Your task to perform on an android device: Open battery settings Image 0: 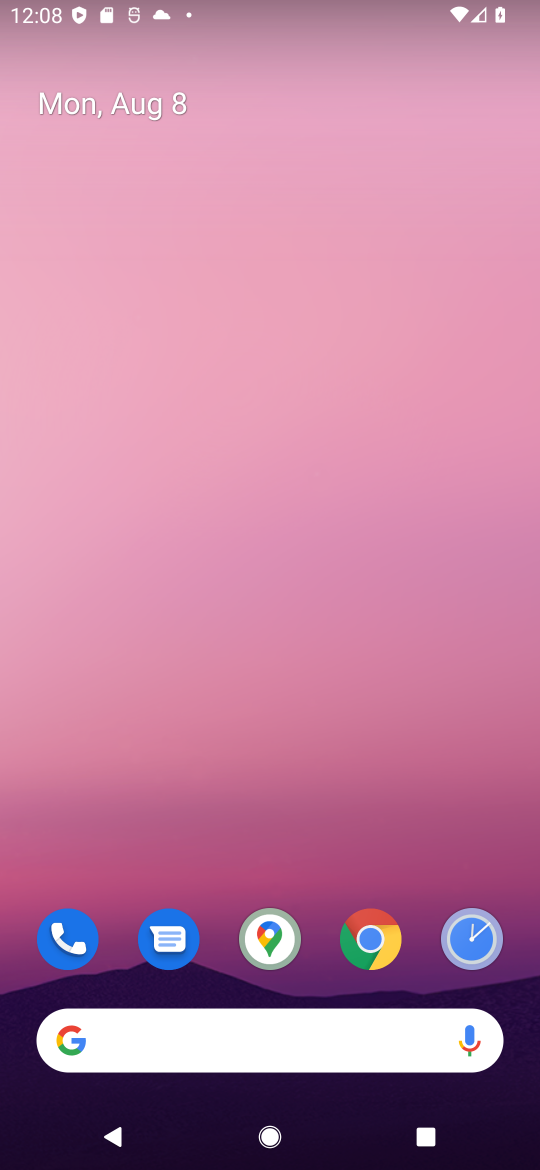
Step 0: drag from (363, 1034) to (383, 601)
Your task to perform on an android device: Open battery settings Image 1: 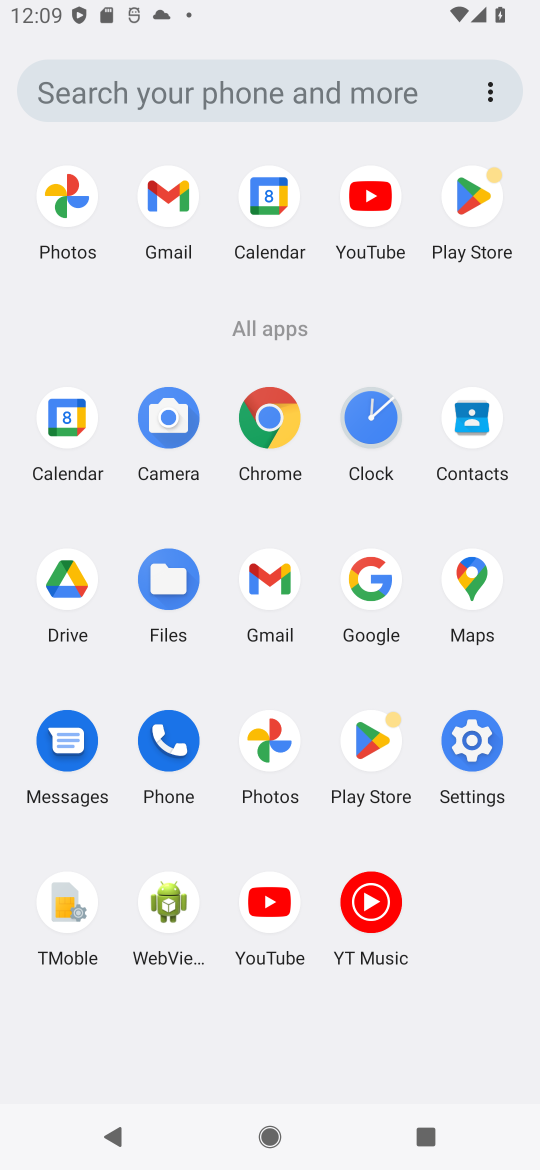
Step 1: click (473, 741)
Your task to perform on an android device: Open battery settings Image 2: 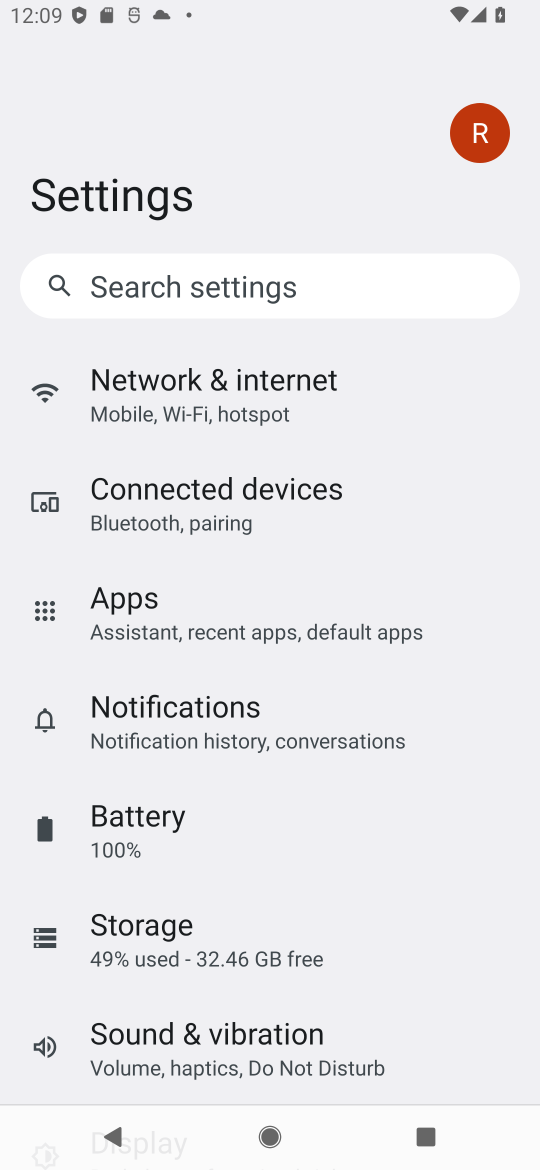
Step 2: click (150, 820)
Your task to perform on an android device: Open battery settings Image 3: 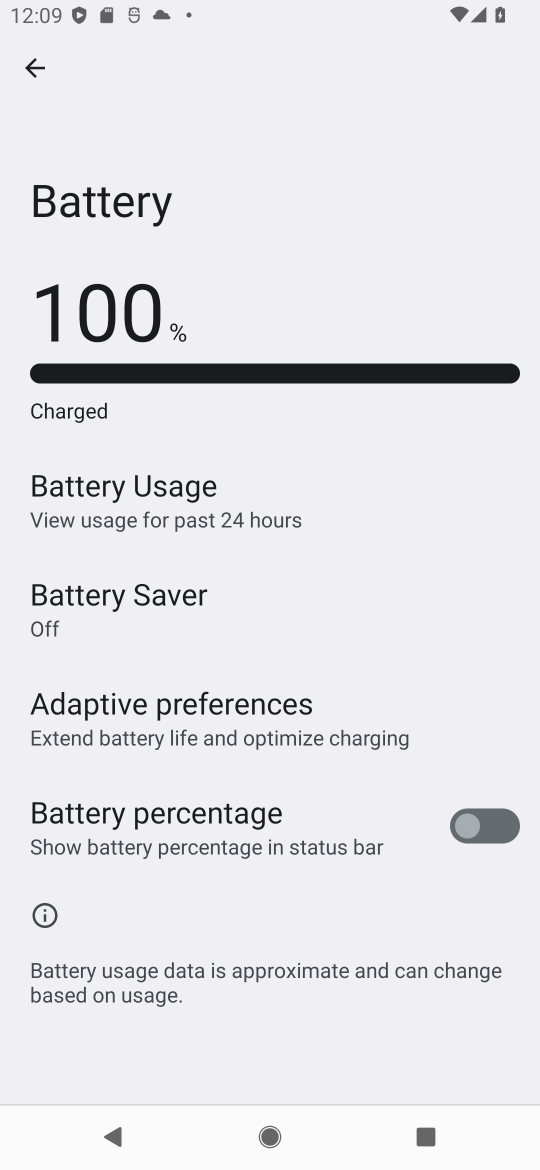
Step 3: task complete